Your task to perform on an android device: Open Android settings Image 0: 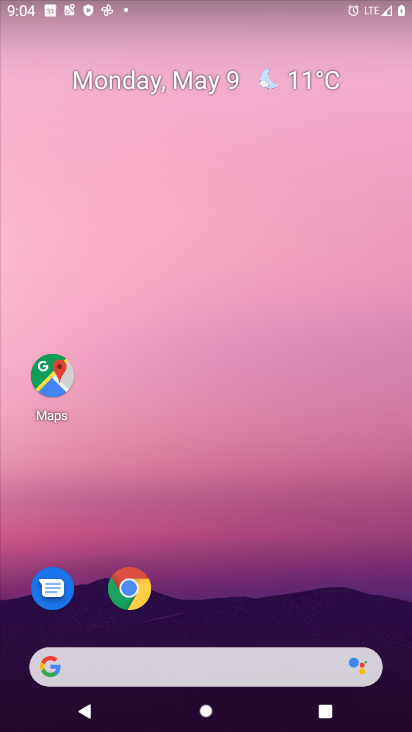
Step 0: drag from (328, 617) to (212, 56)
Your task to perform on an android device: Open Android settings Image 1: 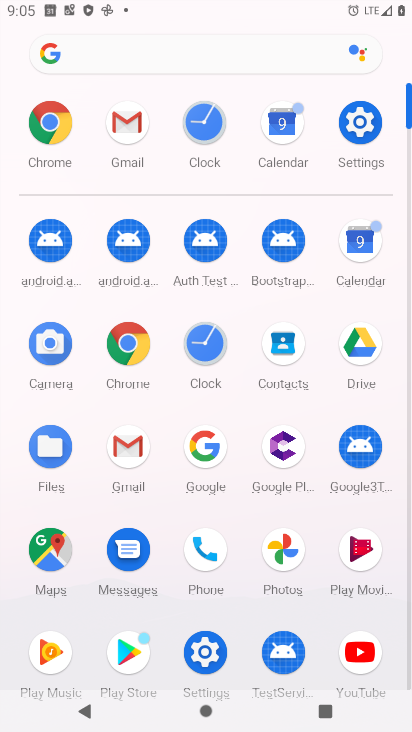
Step 1: click (198, 668)
Your task to perform on an android device: Open Android settings Image 2: 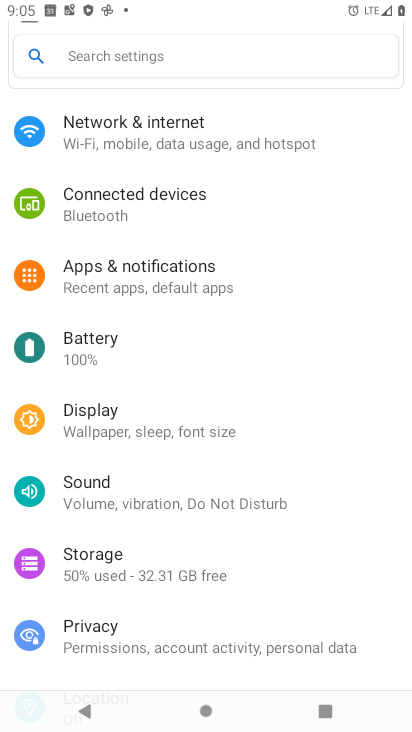
Step 2: drag from (171, 626) to (168, 223)
Your task to perform on an android device: Open Android settings Image 3: 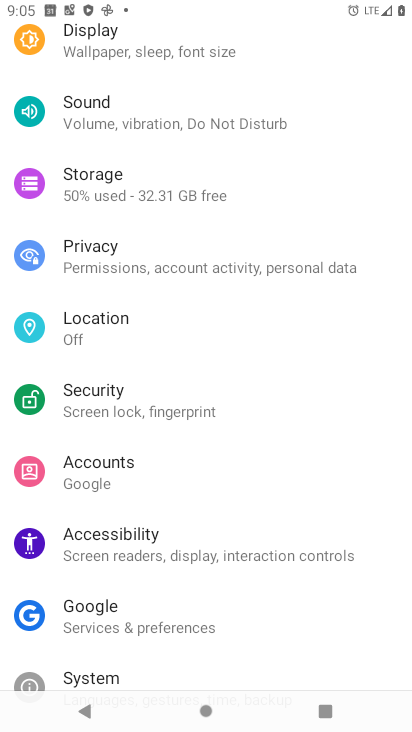
Step 3: drag from (136, 654) to (195, 176)
Your task to perform on an android device: Open Android settings Image 4: 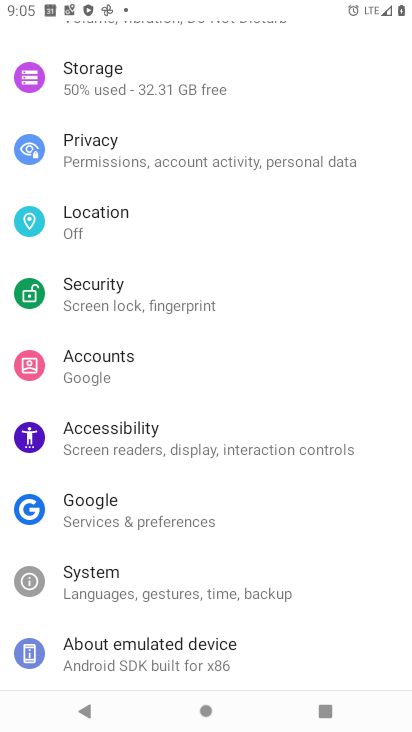
Step 4: click (172, 660)
Your task to perform on an android device: Open Android settings Image 5: 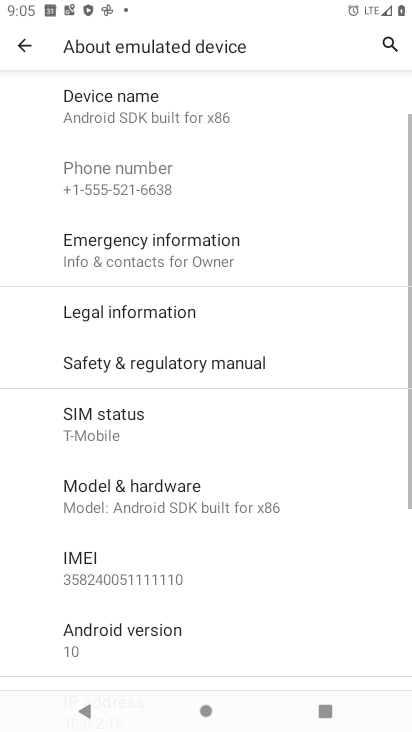
Step 5: click (159, 643)
Your task to perform on an android device: Open Android settings Image 6: 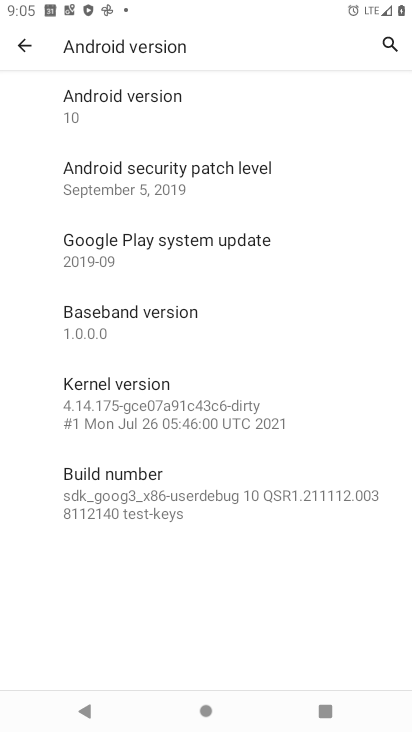
Step 6: task complete